Your task to perform on an android device: open sync settings in chrome Image 0: 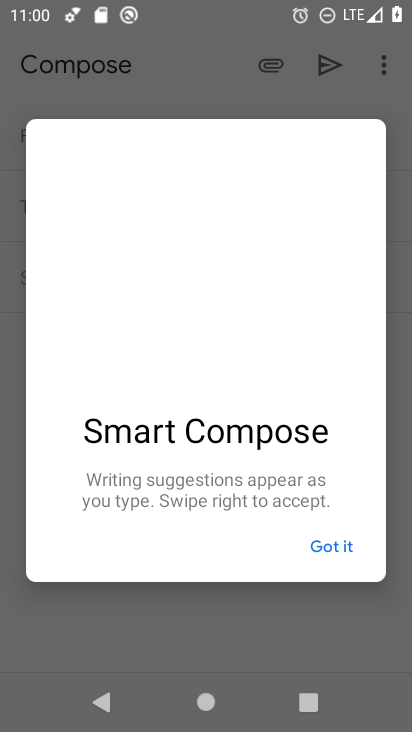
Step 0: click (236, 709)
Your task to perform on an android device: open sync settings in chrome Image 1: 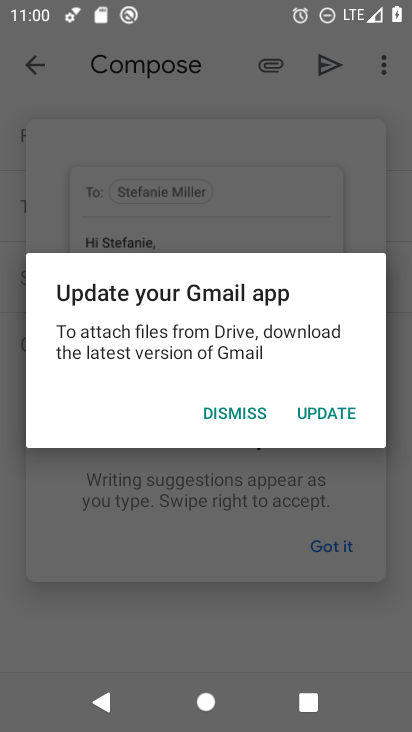
Step 1: press home button
Your task to perform on an android device: open sync settings in chrome Image 2: 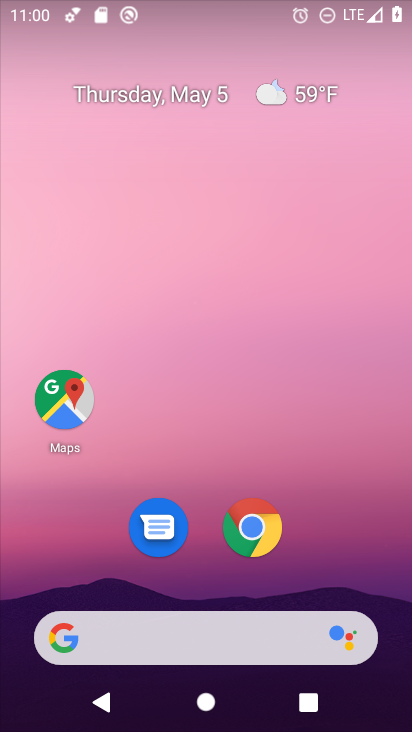
Step 2: click (256, 542)
Your task to perform on an android device: open sync settings in chrome Image 3: 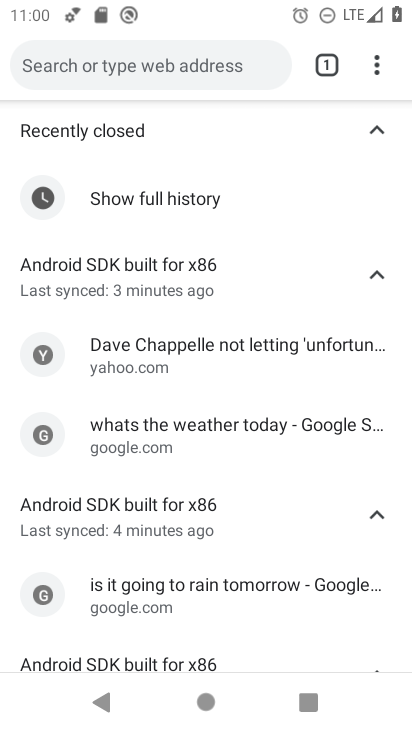
Step 3: drag from (377, 70) to (175, 583)
Your task to perform on an android device: open sync settings in chrome Image 4: 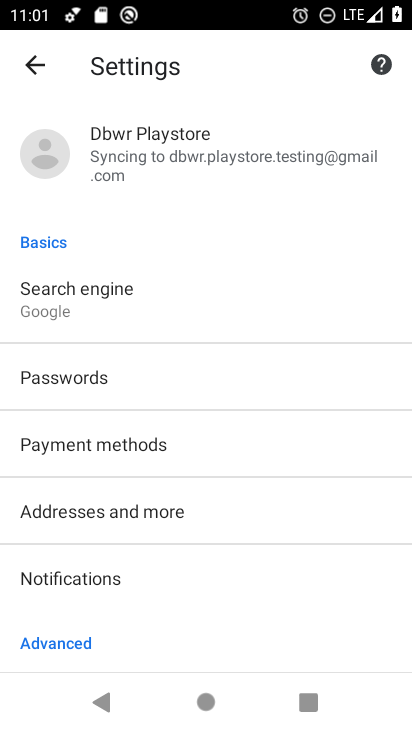
Step 4: click (243, 149)
Your task to perform on an android device: open sync settings in chrome Image 5: 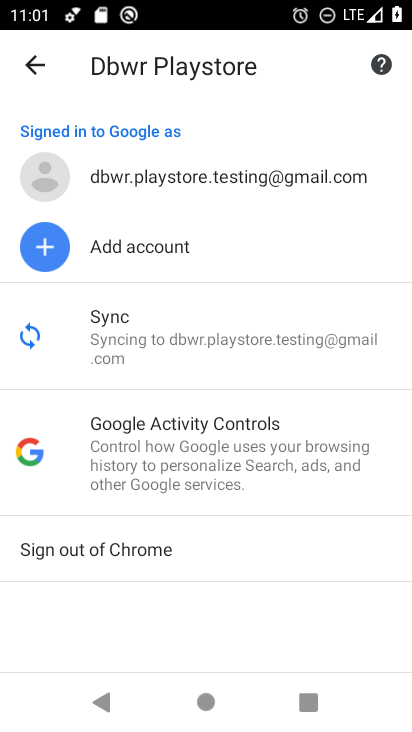
Step 5: click (215, 344)
Your task to perform on an android device: open sync settings in chrome Image 6: 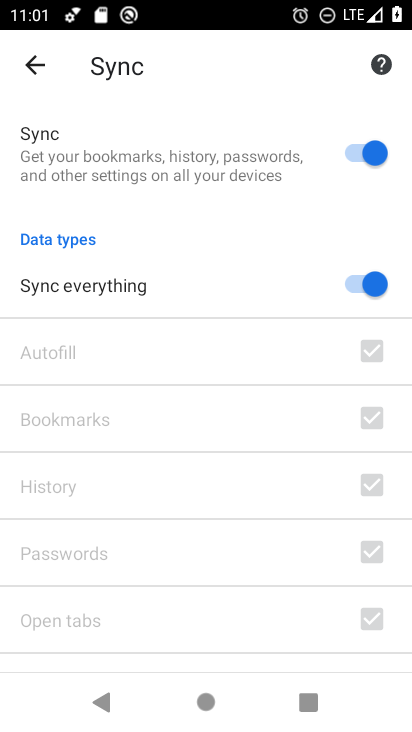
Step 6: task complete